Your task to perform on an android device: change alarm snooze length Image 0: 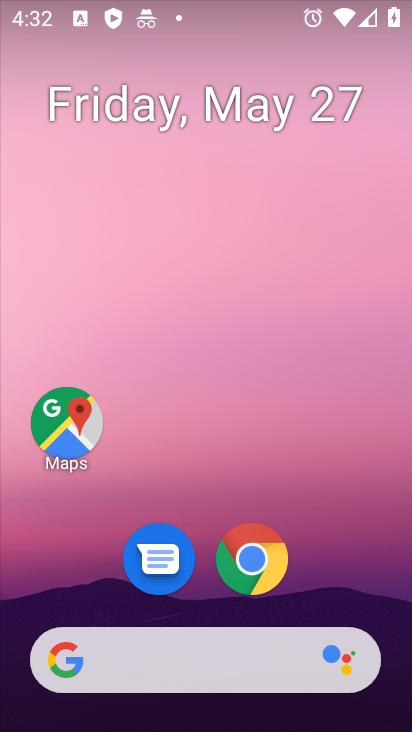
Step 0: drag from (291, 660) to (373, 48)
Your task to perform on an android device: change alarm snooze length Image 1: 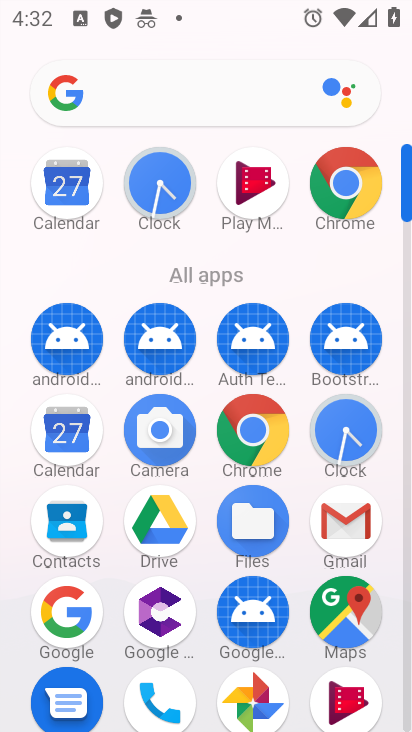
Step 1: click (340, 431)
Your task to perform on an android device: change alarm snooze length Image 2: 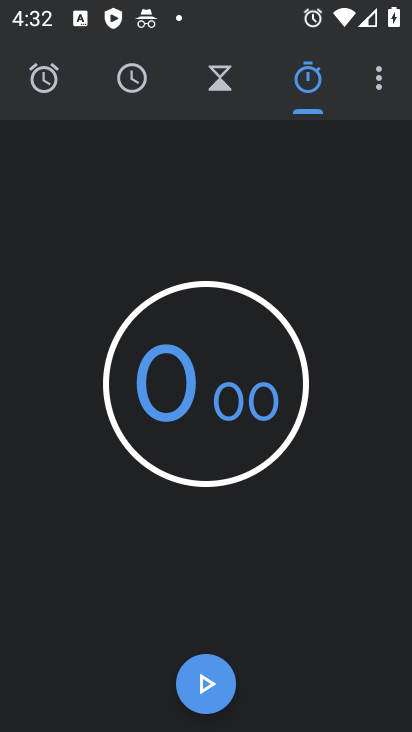
Step 2: click (384, 79)
Your task to perform on an android device: change alarm snooze length Image 3: 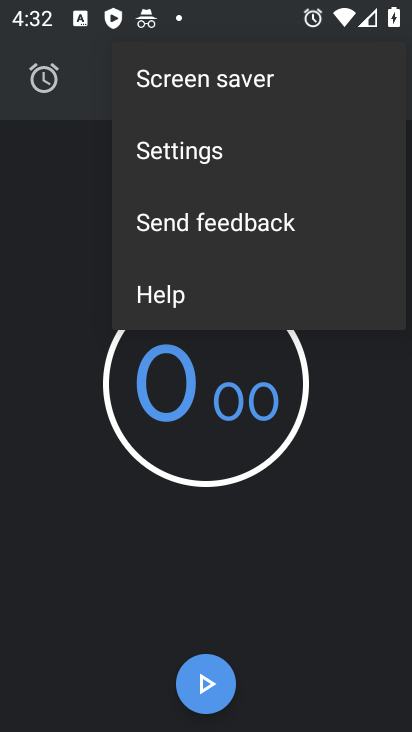
Step 3: click (227, 152)
Your task to perform on an android device: change alarm snooze length Image 4: 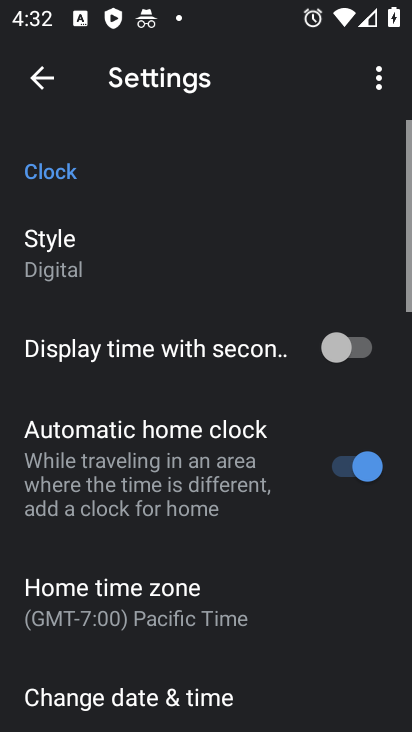
Step 4: drag from (209, 592) to (246, 46)
Your task to perform on an android device: change alarm snooze length Image 5: 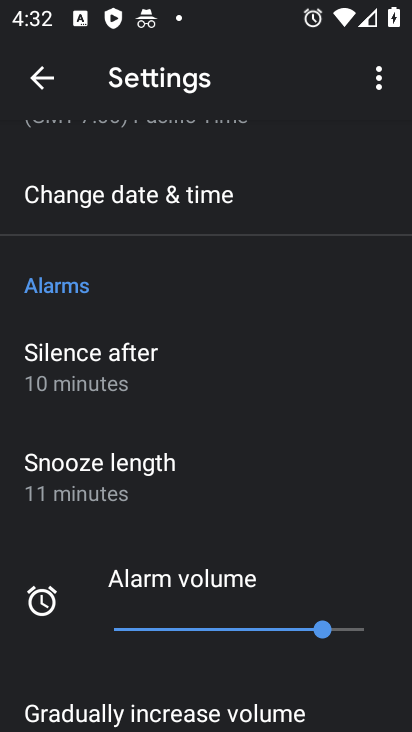
Step 5: click (142, 469)
Your task to perform on an android device: change alarm snooze length Image 6: 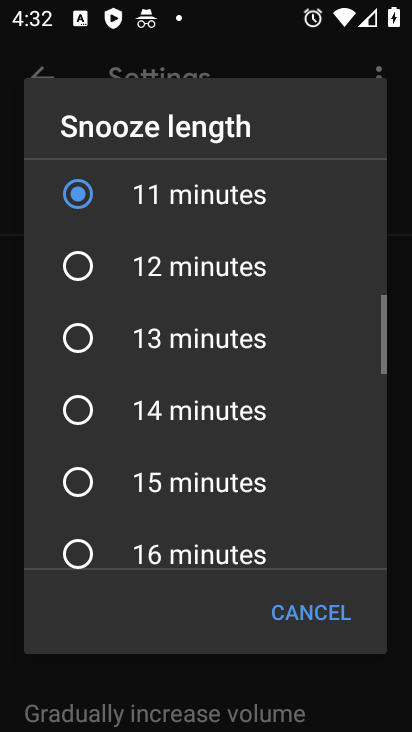
Step 6: click (78, 272)
Your task to perform on an android device: change alarm snooze length Image 7: 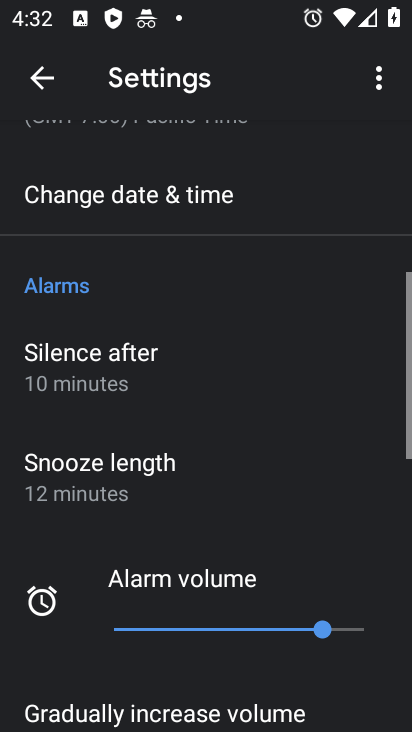
Step 7: task complete